Your task to perform on an android device: When is my next appointment? Image 0: 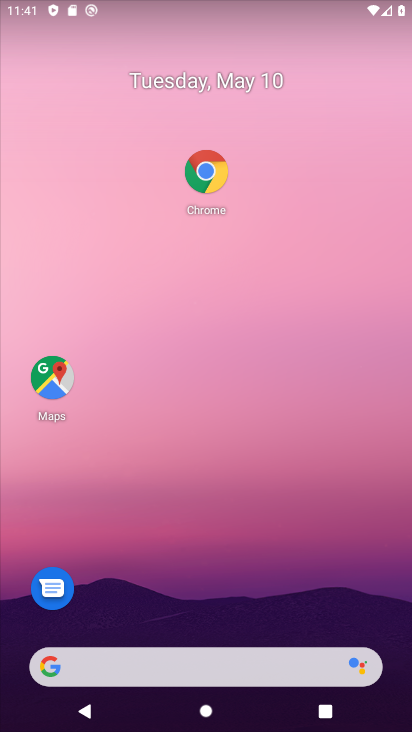
Step 0: drag from (266, 604) to (308, 258)
Your task to perform on an android device: When is my next appointment? Image 1: 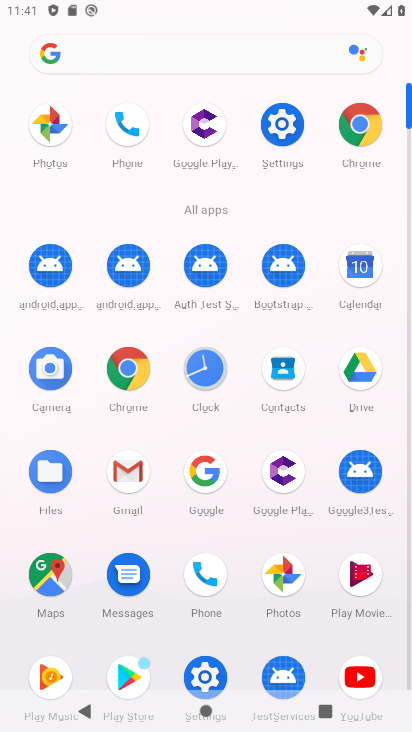
Step 1: click (355, 255)
Your task to perform on an android device: When is my next appointment? Image 2: 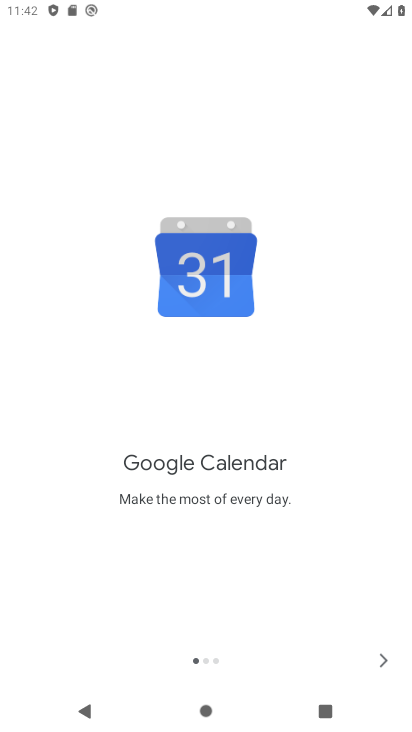
Step 2: click (381, 662)
Your task to perform on an android device: When is my next appointment? Image 3: 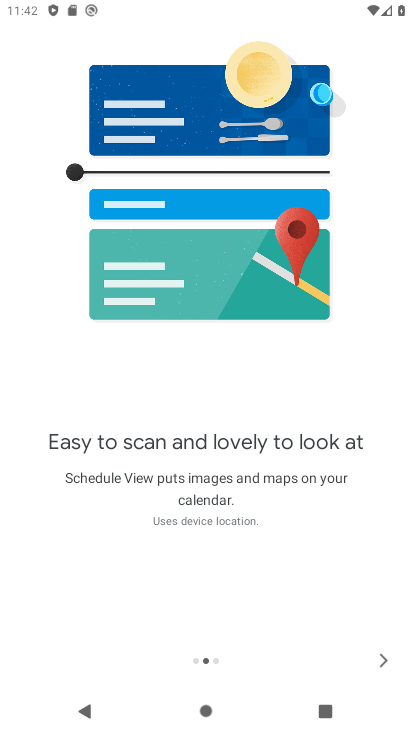
Step 3: click (381, 673)
Your task to perform on an android device: When is my next appointment? Image 4: 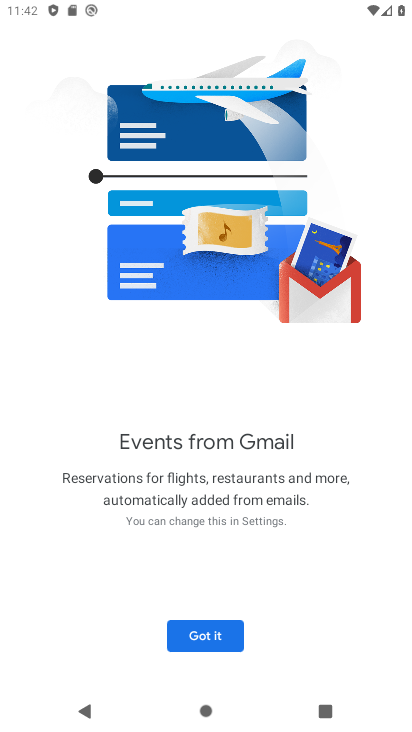
Step 4: click (193, 625)
Your task to perform on an android device: When is my next appointment? Image 5: 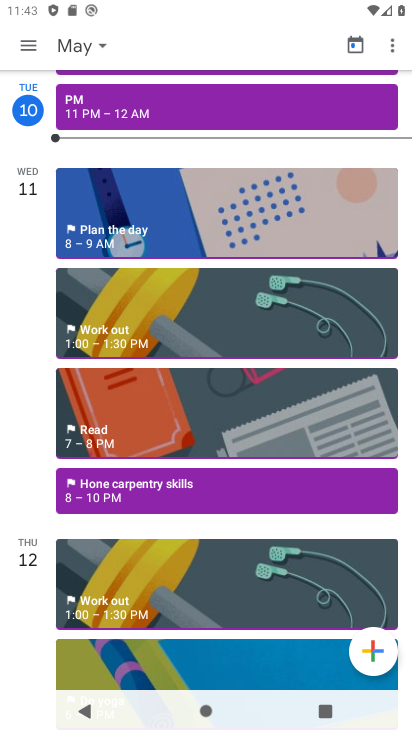
Step 5: task complete